Your task to perform on an android device: turn on javascript in the chrome app Image 0: 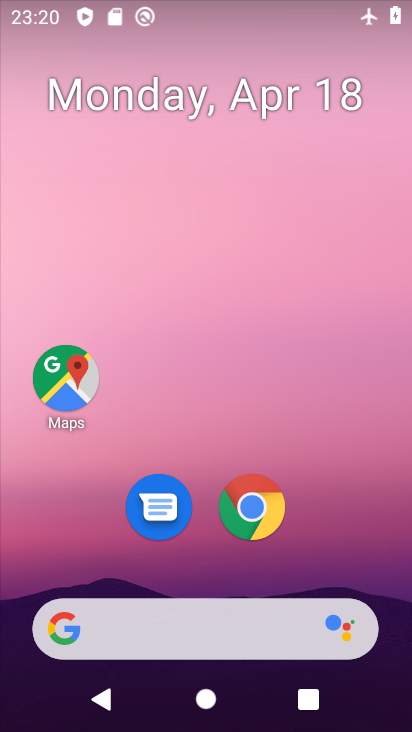
Step 0: click (251, 507)
Your task to perform on an android device: turn on javascript in the chrome app Image 1: 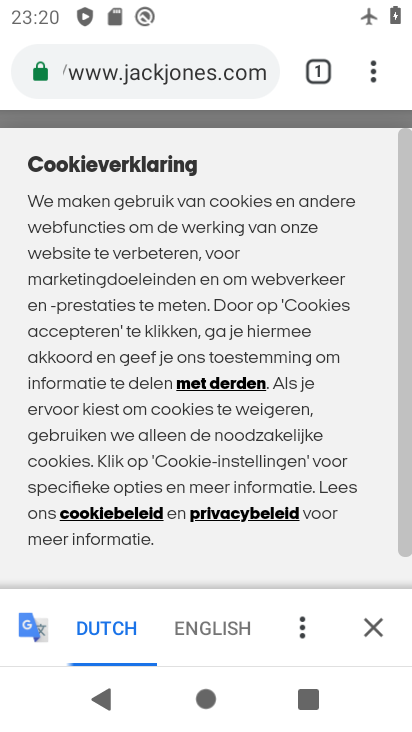
Step 1: click (374, 71)
Your task to perform on an android device: turn on javascript in the chrome app Image 2: 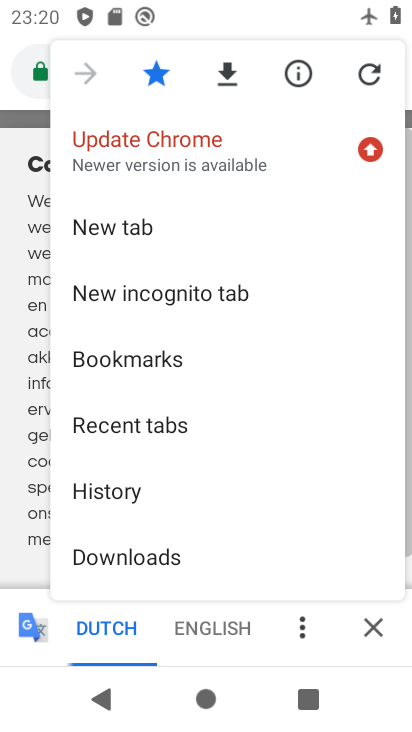
Step 2: drag from (229, 446) to (245, 204)
Your task to perform on an android device: turn on javascript in the chrome app Image 3: 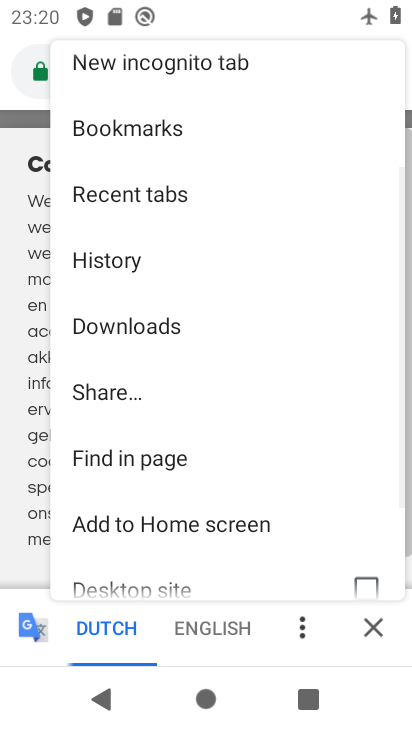
Step 3: drag from (230, 341) to (263, 131)
Your task to perform on an android device: turn on javascript in the chrome app Image 4: 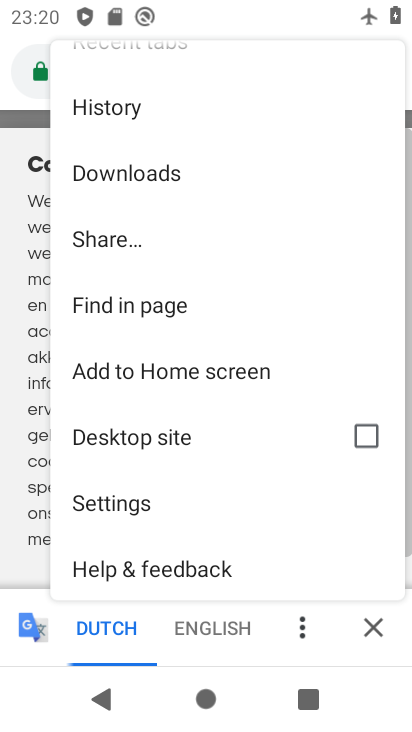
Step 4: click (158, 497)
Your task to perform on an android device: turn on javascript in the chrome app Image 5: 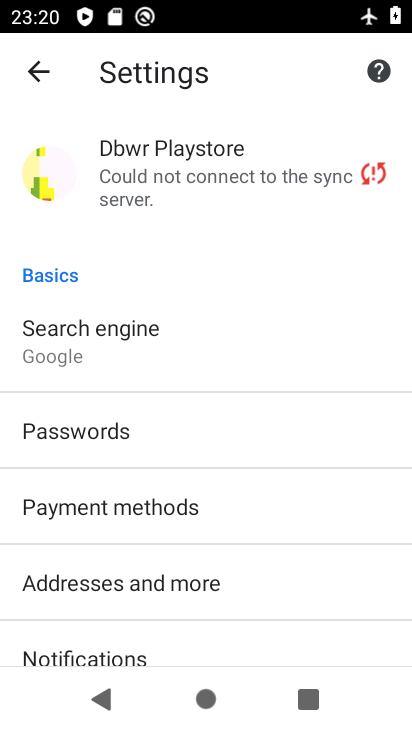
Step 5: drag from (252, 530) to (323, 145)
Your task to perform on an android device: turn on javascript in the chrome app Image 6: 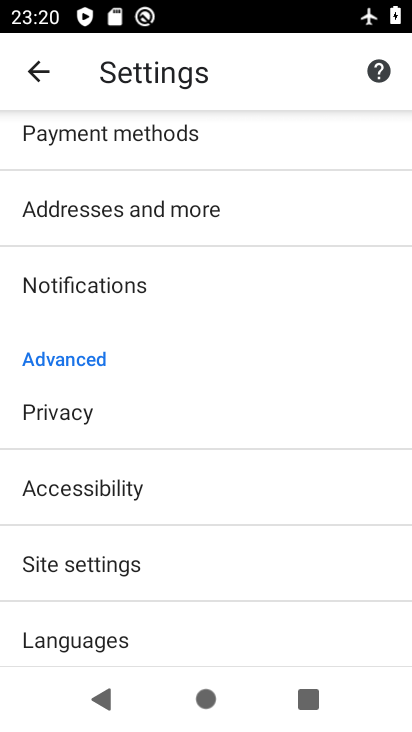
Step 6: click (146, 565)
Your task to perform on an android device: turn on javascript in the chrome app Image 7: 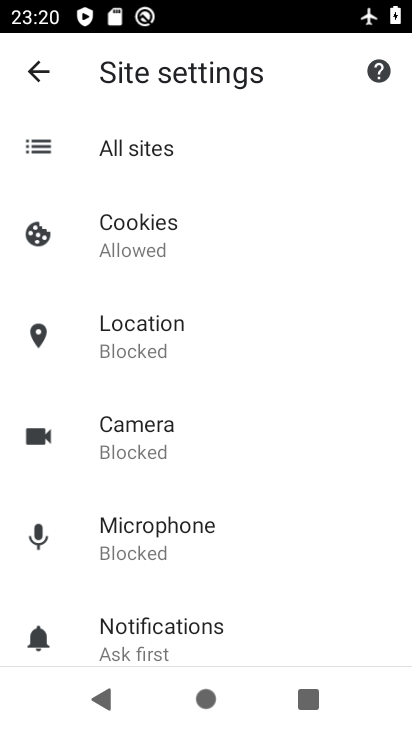
Step 7: drag from (235, 528) to (339, 135)
Your task to perform on an android device: turn on javascript in the chrome app Image 8: 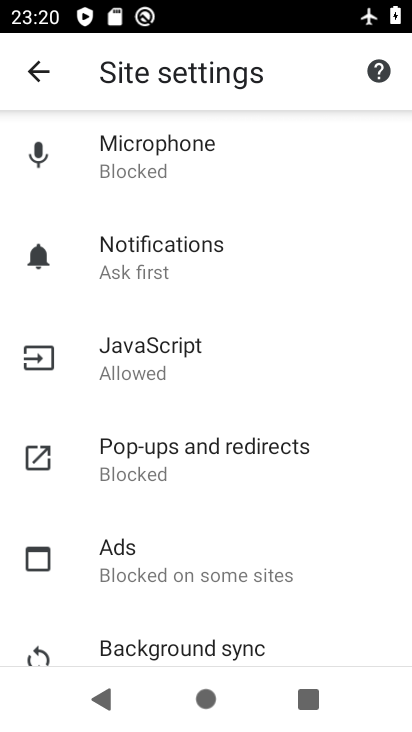
Step 8: click (218, 365)
Your task to perform on an android device: turn on javascript in the chrome app Image 9: 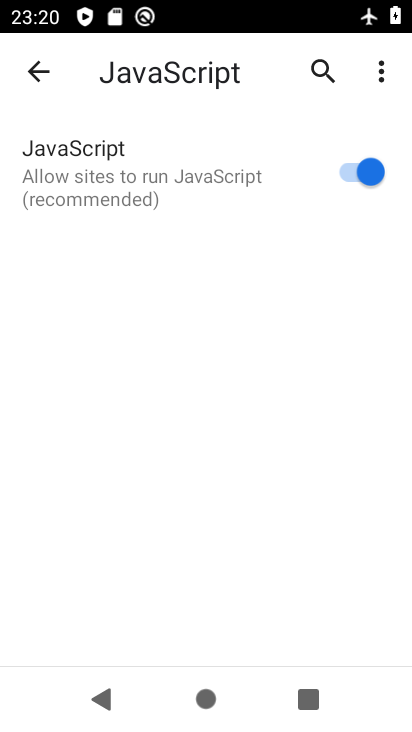
Step 9: task complete